Your task to perform on an android device: turn off priority inbox in the gmail app Image 0: 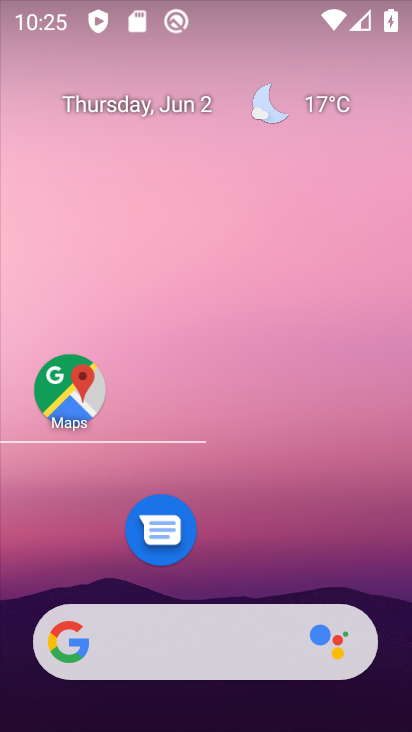
Step 0: press back button
Your task to perform on an android device: turn off priority inbox in the gmail app Image 1: 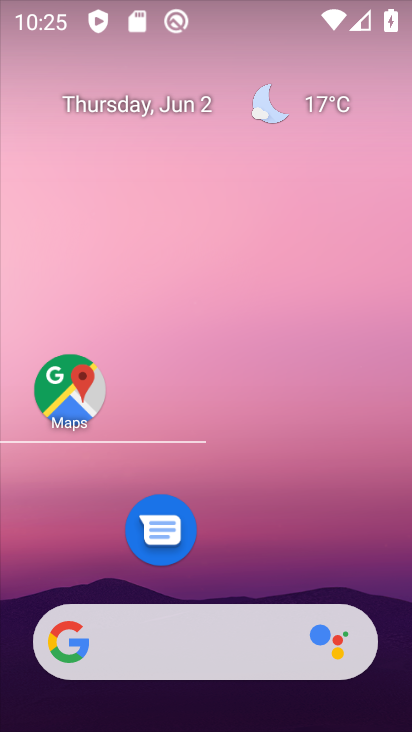
Step 1: click (184, 93)
Your task to perform on an android device: turn off priority inbox in the gmail app Image 2: 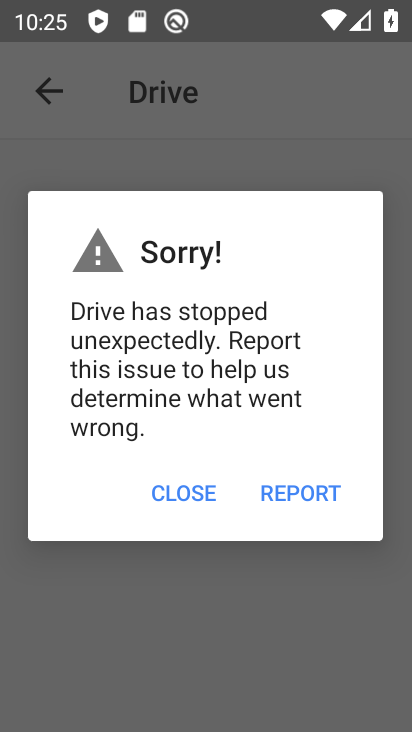
Step 2: click (179, 501)
Your task to perform on an android device: turn off priority inbox in the gmail app Image 3: 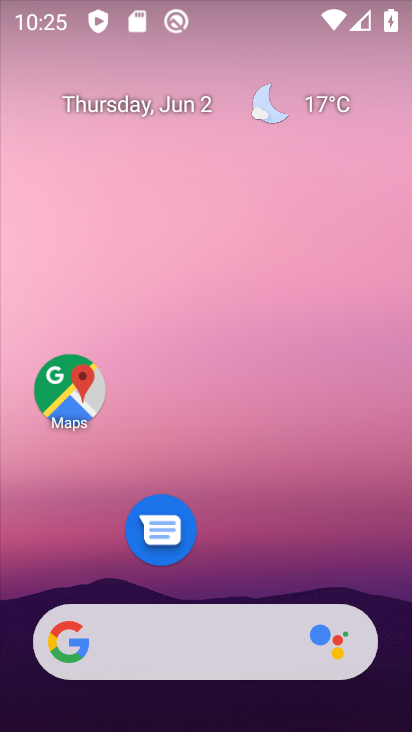
Step 3: drag from (252, 633) to (278, 57)
Your task to perform on an android device: turn off priority inbox in the gmail app Image 4: 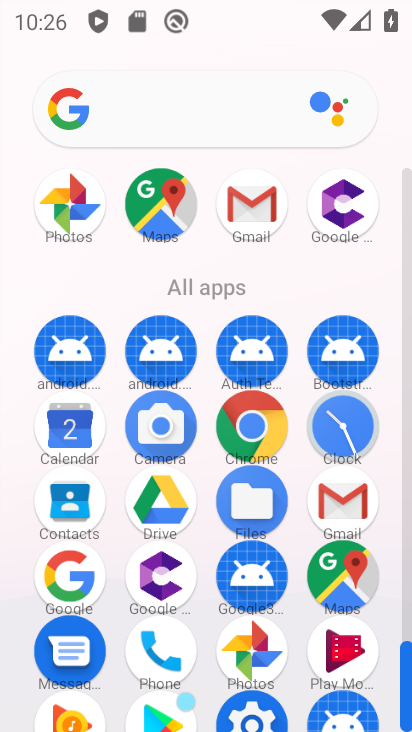
Step 4: click (249, 199)
Your task to perform on an android device: turn off priority inbox in the gmail app Image 5: 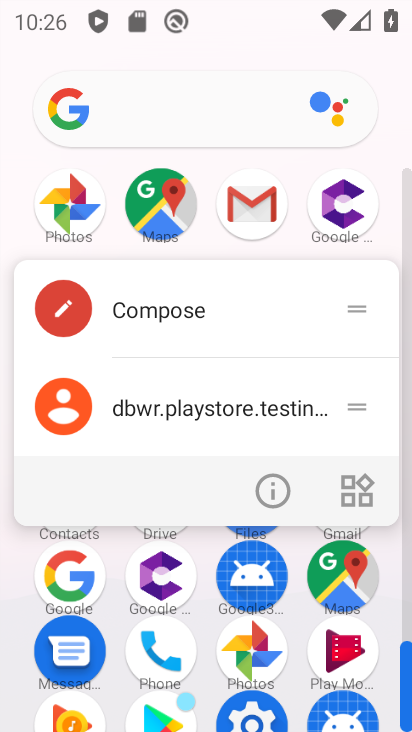
Step 5: click (194, 399)
Your task to perform on an android device: turn off priority inbox in the gmail app Image 6: 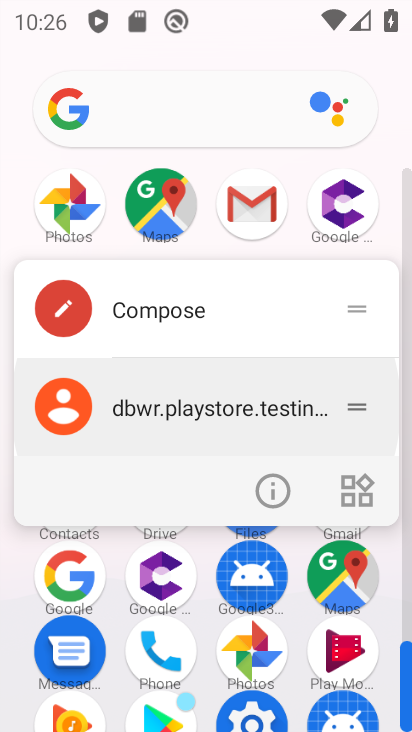
Step 6: click (194, 399)
Your task to perform on an android device: turn off priority inbox in the gmail app Image 7: 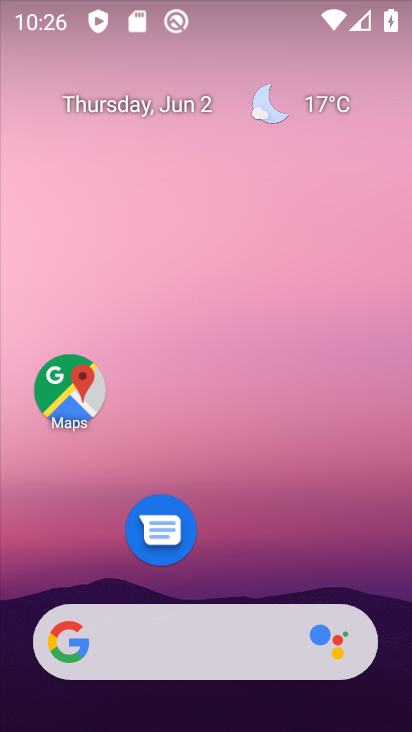
Step 7: click (194, 399)
Your task to perform on an android device: turn off priority inbox in the gmail app Image 8: 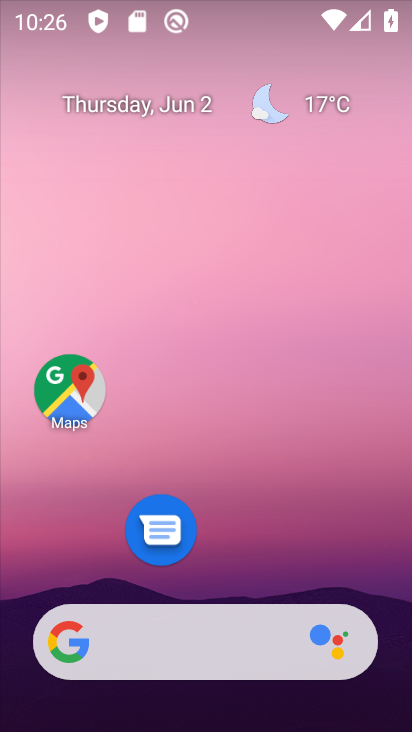
Step 8: drag from (238, 519) to (184, 0)
Your task to perform on an android device: turn off priority inbox in the gmail app Image 9: 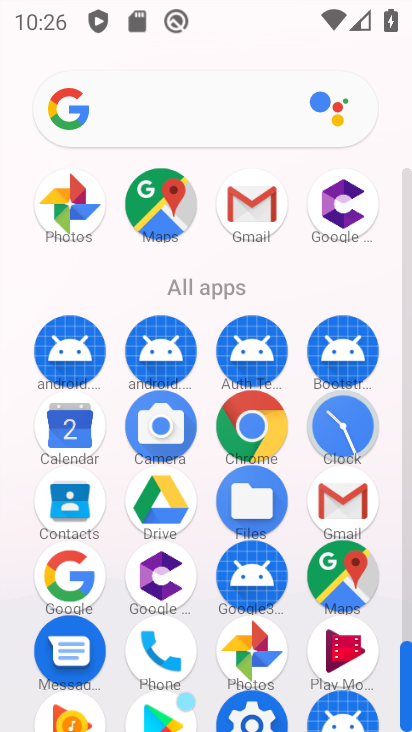
Step 9: click (231, 207)
Your task to perform on an android device: turn off priority inbox in the gmail app Image 10: 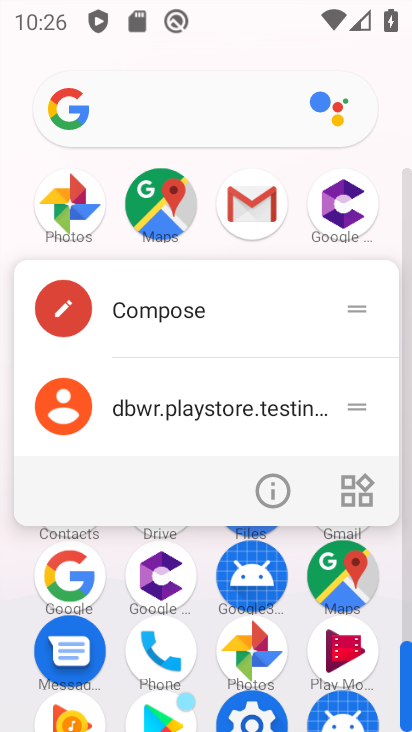
Step 10: click (233, 204)
Your task to perform on an android device: turn off priority inbox in the gmail app Image 11: 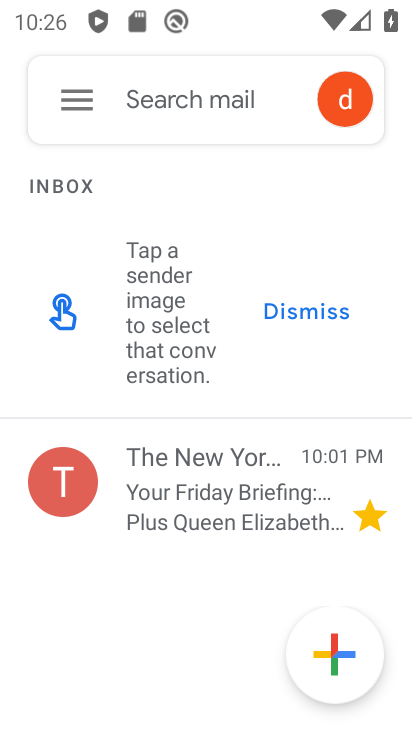
Step 11: click (68, 102)
Your task to perform on an android device: turn off priority inbox in the gmail app Image 12: 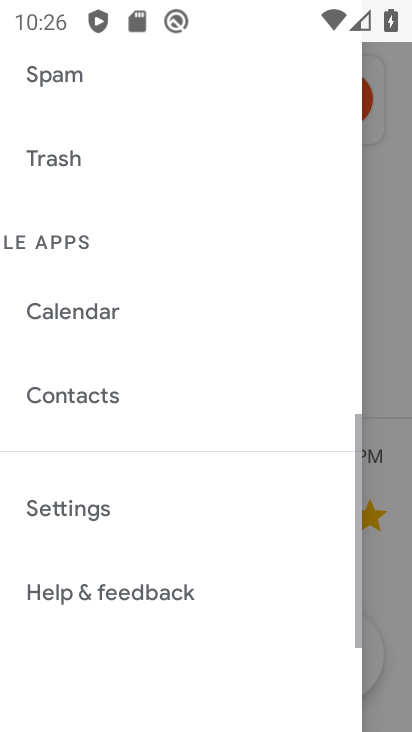
Step 12: click (68, 102)
Your task to perform on an android device: turn off priority inbox in the gmail app Image 13: 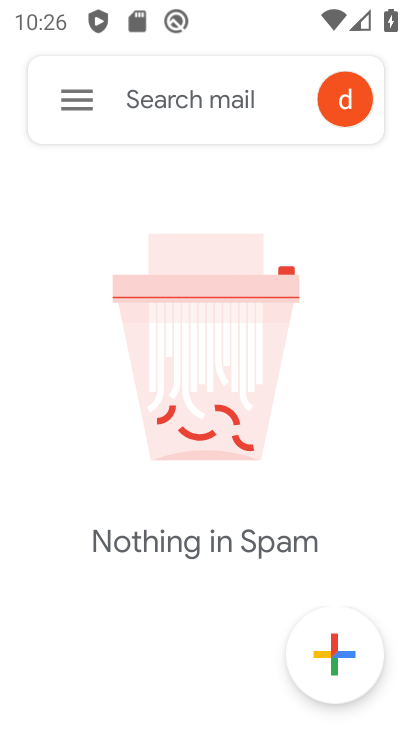
Step 13: click (74, 92)
Your task to perform on an android device: turn off priority inbox in the gmail app Image 14: 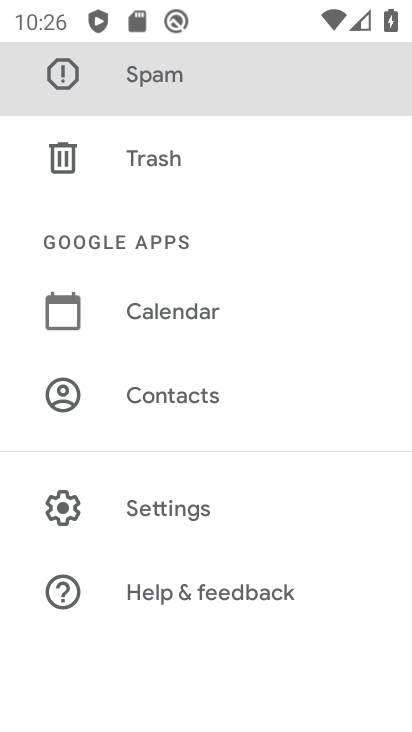
Step 14: click (165, 512)
Your task to perform on an android device: turn off priority inbox in the gmail app Image 15: 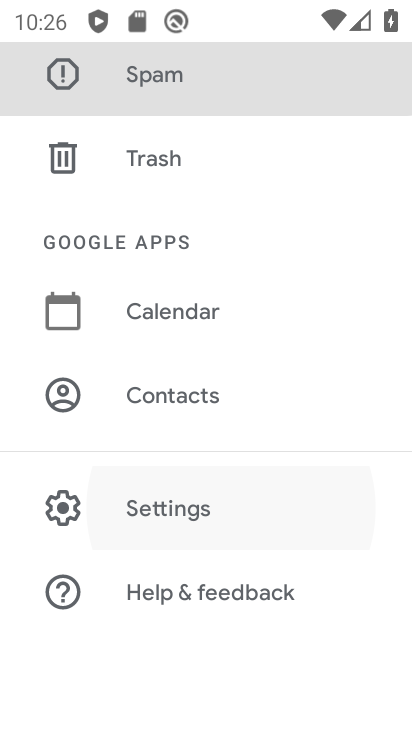
Step 15: click (165, 512)
Your task to perform on an android device: turn off priority inbox in the gmail app Image 16: 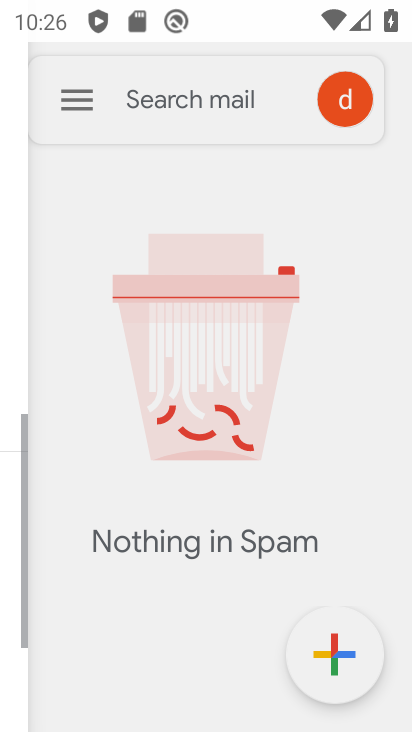
Step 16: click (165, 512)
Your task to perform on an android device: turn off priority inbox in the gmail app Image 17: 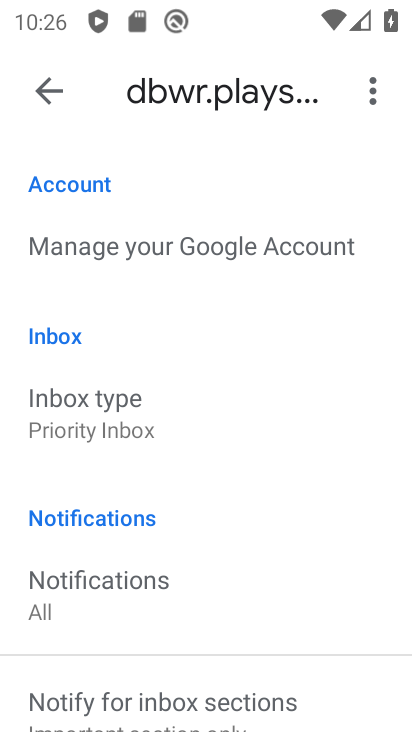
Step 17: click (91, 415)
Your task to perform on an android device: turn off priority inbox in the gmail app Image 18: 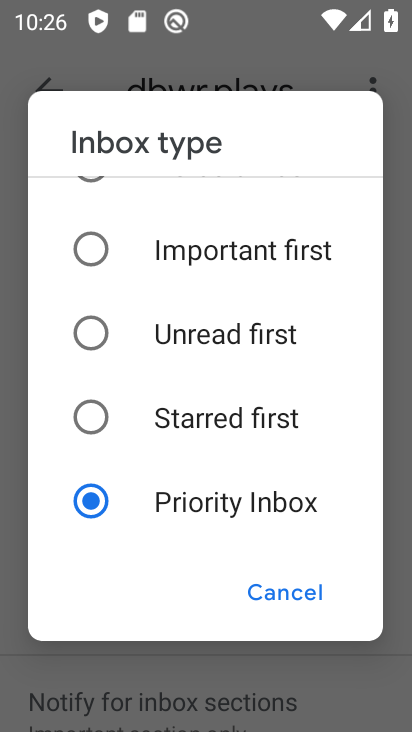
Step 18: click (79, 238)
Your task to perform on an android device: turn off priority inbox in the gmail app Image 19: 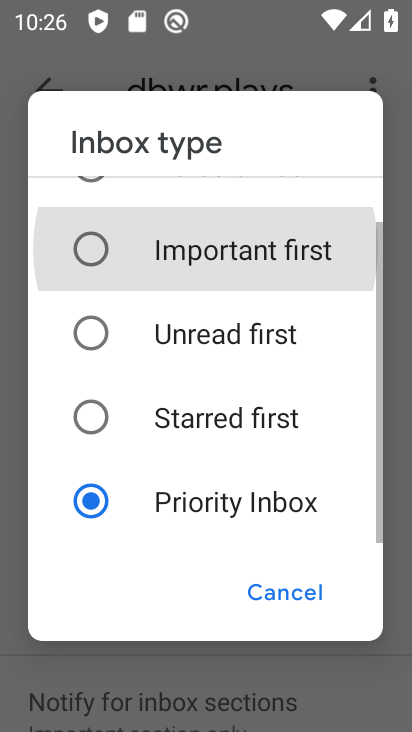
Step 19: click (83, 239)
Your task to perform on an android device: turn off priority inbox in the gmail app Image 20: 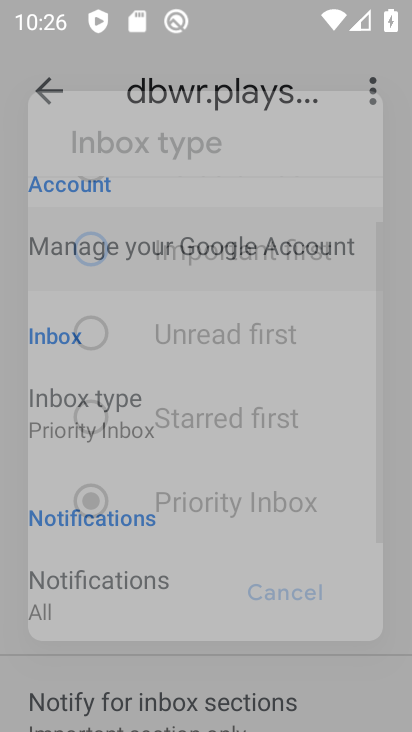
Step 20: click (83, 239)
Your task to perform on an android device: turn off priority inbox in the gmail app Image 21: 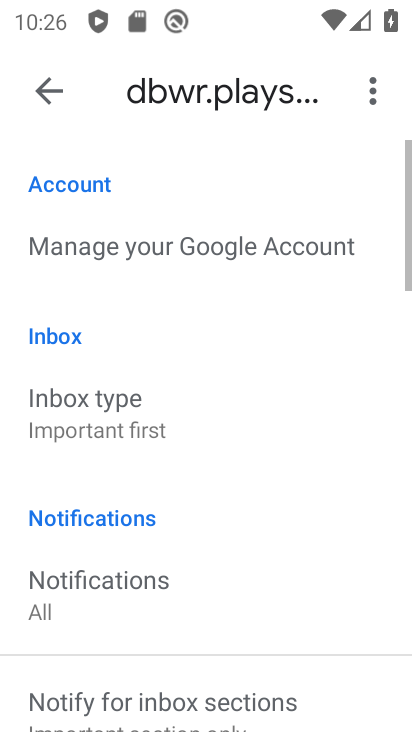
Step 21: click (84, 239)
Your task to perform on an android device: turn off priority inbox in the gmail app Image 22: 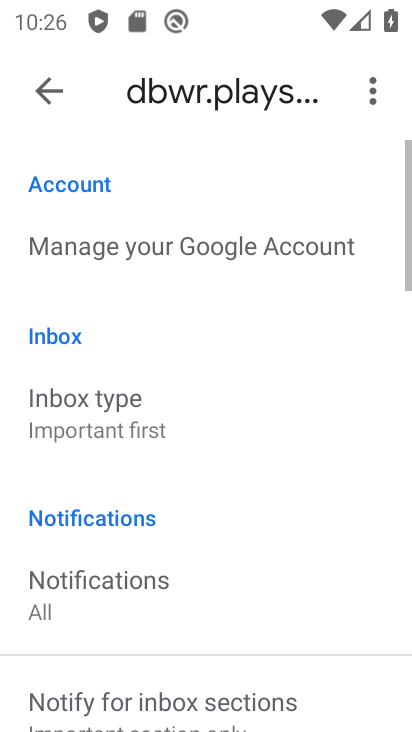
Step 22: task complete